Your task to perform on an android device: Open my contact list Image 0: 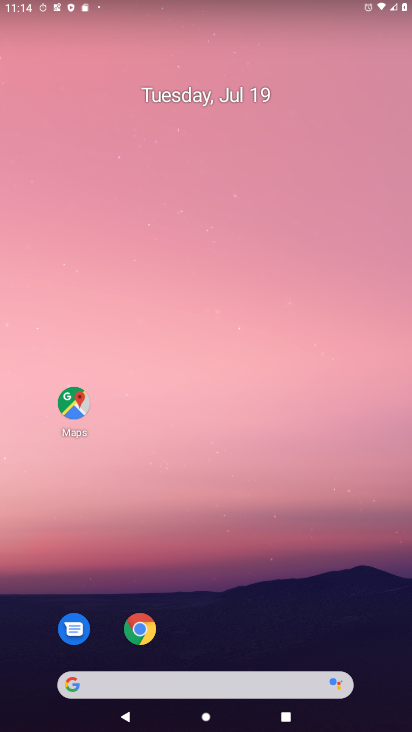
Step 0: drag from (234, 671) to (216, 220)
Your task to perform on an android device: Open my contact list Image 1: 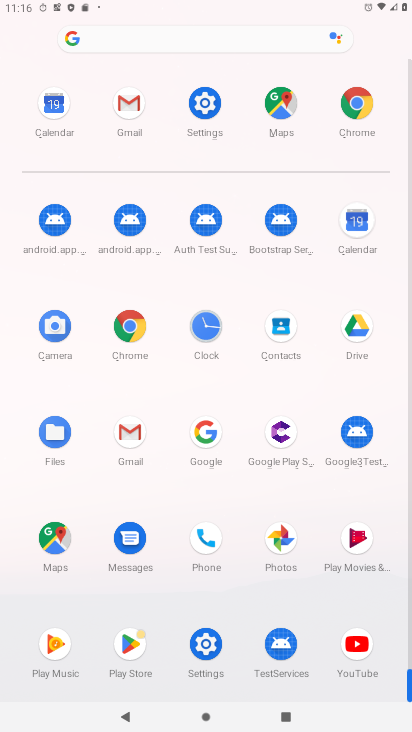
Step 1: click (282, 326)
Your task to perform on an android device: Open my contact list Image 2: 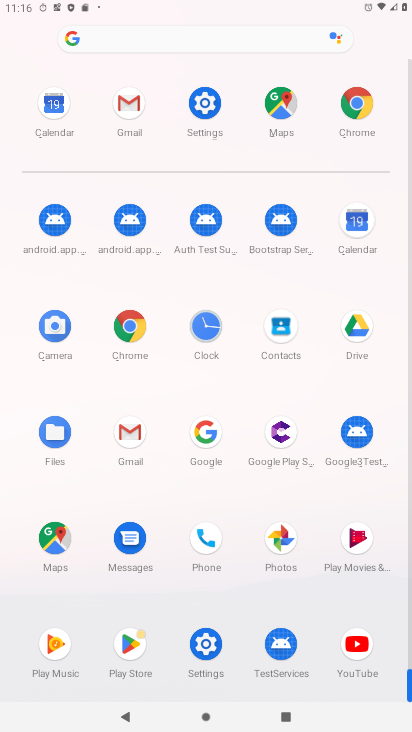
Step 2: click (282, 326)
Your task to perform on an android device: Open my contact list Image 3: 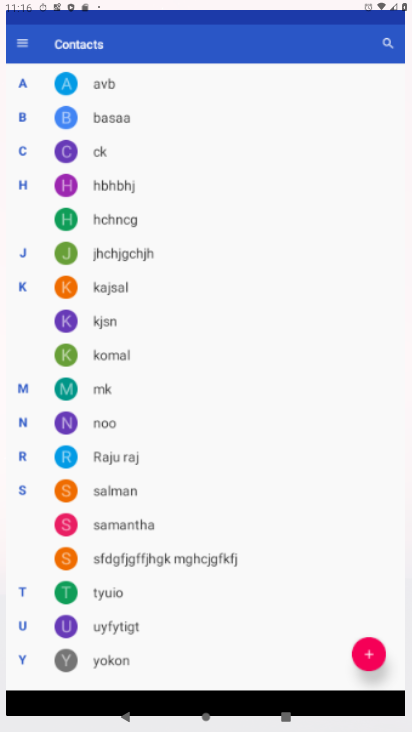
Step 3: click (284, 328)
Your task to perform on an android device: Open my contact list Image 4: 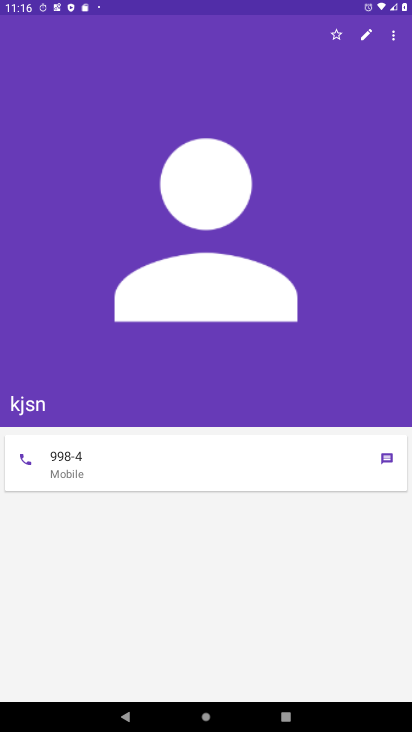
Step 4: task complete